Your task to perform on an android device: Open the calendar and show me this week's events? Image 0: 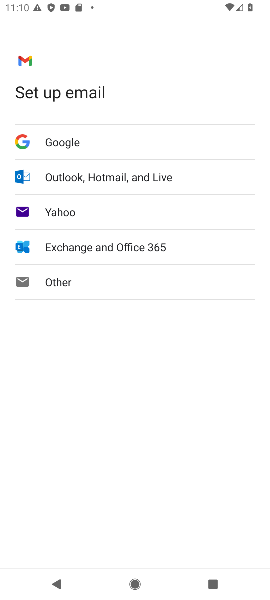
Step 0: press home button
Your task to perform on an android device: Open the calendar and show me this week's events? Image 1: 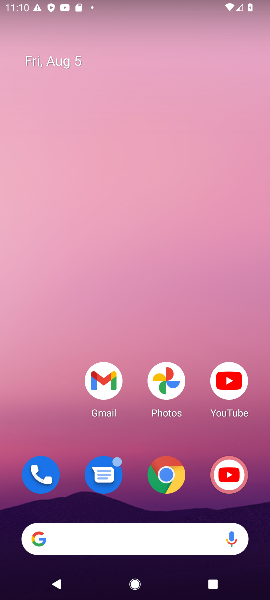
Step 1: drag from (138, 497) to (147, 50)
Your task to perform on an android device: Open the calendar and show me this week's events? Image 2: 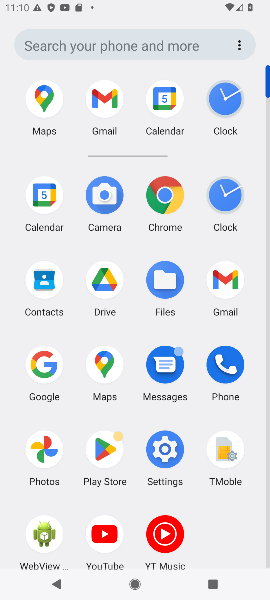
Step 2: click (53, 210)
Your task to perform on an android device: Open the calendar and show me this week's events? Image 3: 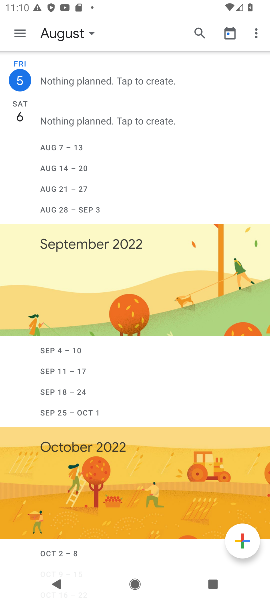
Step 3: click (15, 32)
Your task to perform on an android device: Open the calendar and show me this week's events? Image 4: 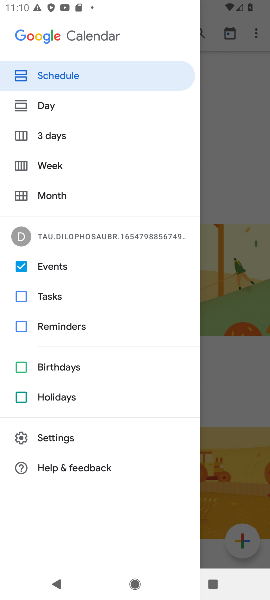
Step 4: click (55, 169)
Your task to perform on an android device: Open the calendar and show me this week's events? Image 5: 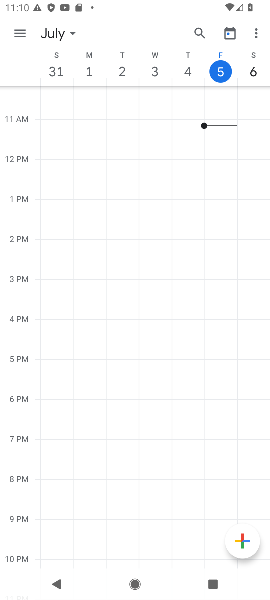
Step 5: task complete